Your task to perform on an android device: Open Google Chrome Image 0: 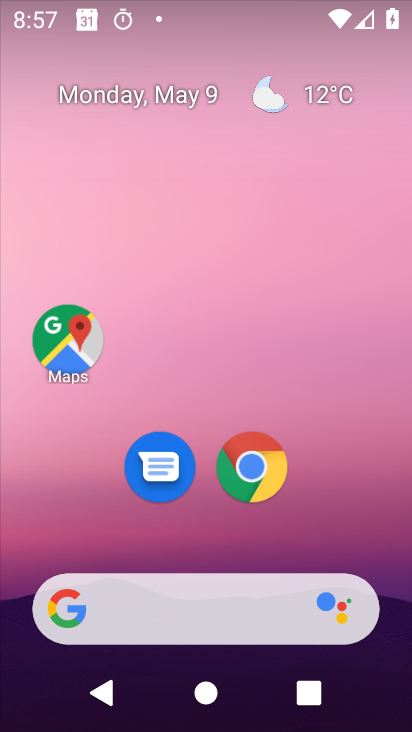
Step 0: click (248, 477)
Your task to perform on an android device: Open Google Chrome Image 1: 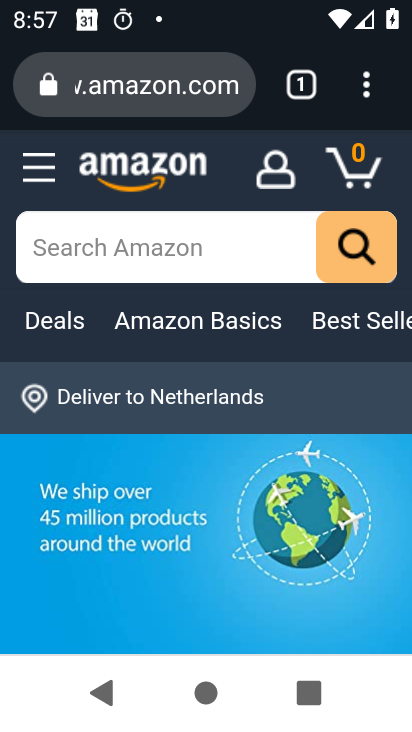
Step 1: task complete